Your task to perform on an android device: Go to battery settings Image 0: 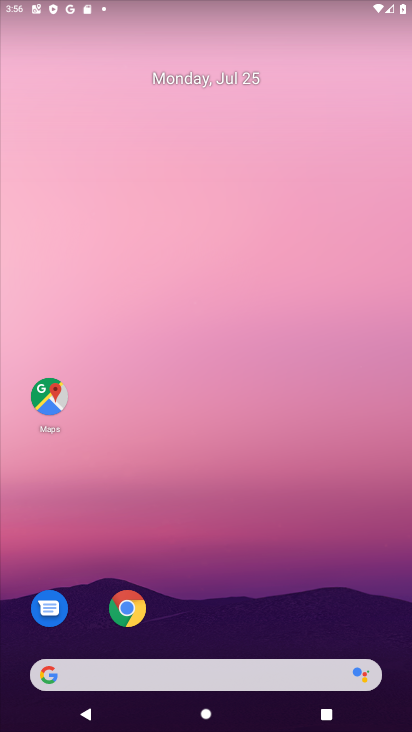
Step 0: drag from (218, 617) to (253, 0)
Your task to perform on an android device: Go to battery settings Image 1: 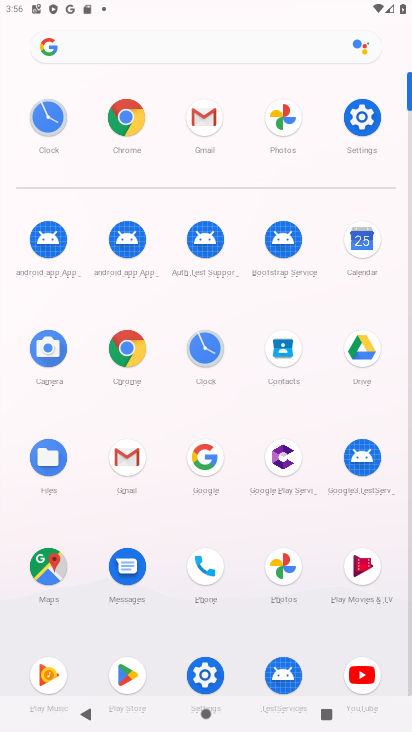
Step 1: click (364, 111)
Your task to perform on an android device: Go to battery settings Image 2: 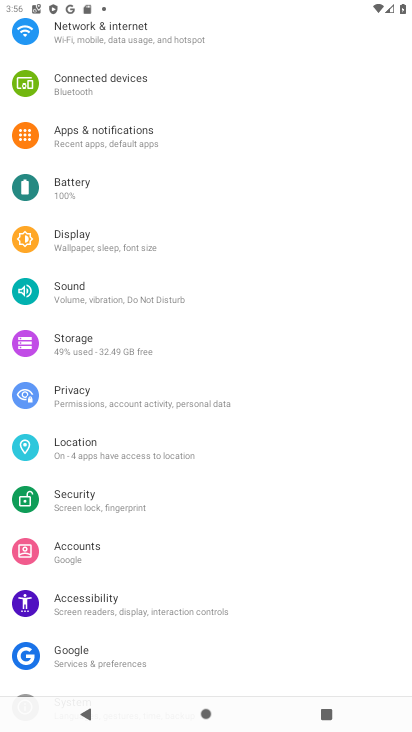
Step 2: click (96, 182)
Your task to perform on an android device: Go to battery settings Image 3: 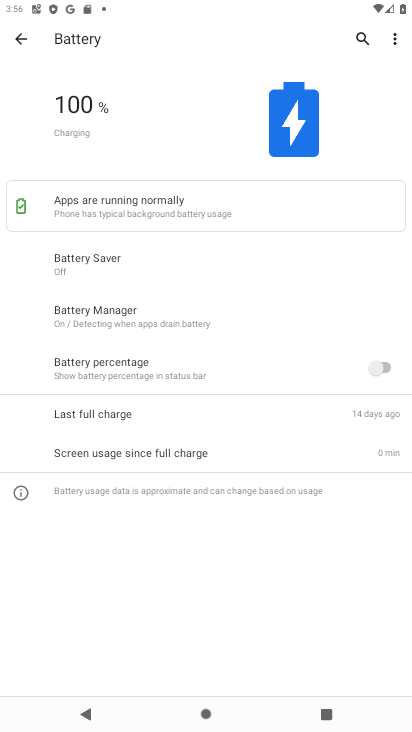
Step 3: task complete